Your task to perform on an android device: turn off sleep mode Image 0: 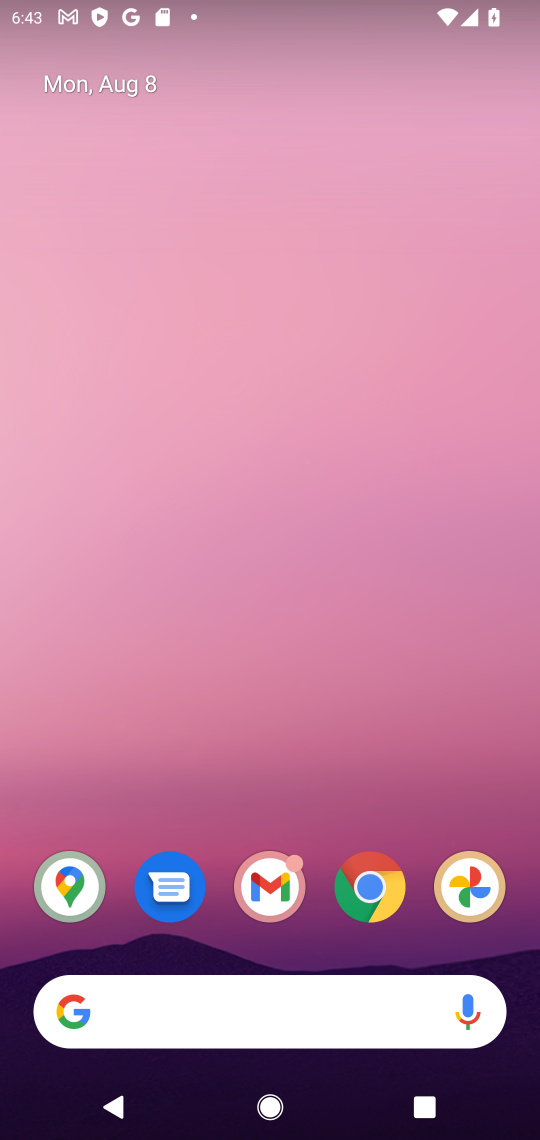
Step 0: drag from (325, 830) to (241, 179)
Your task to perform on an android device: turn off sleep mode Image 1: 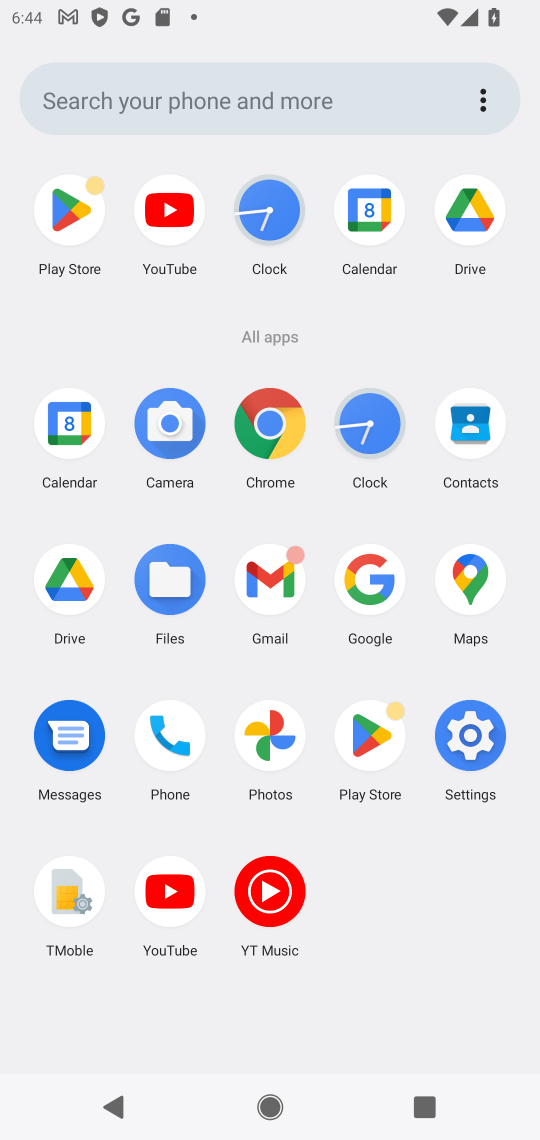
Step 1: click (478, 755)
Your task to perform on an android device: turn off sleep mode Image 2: 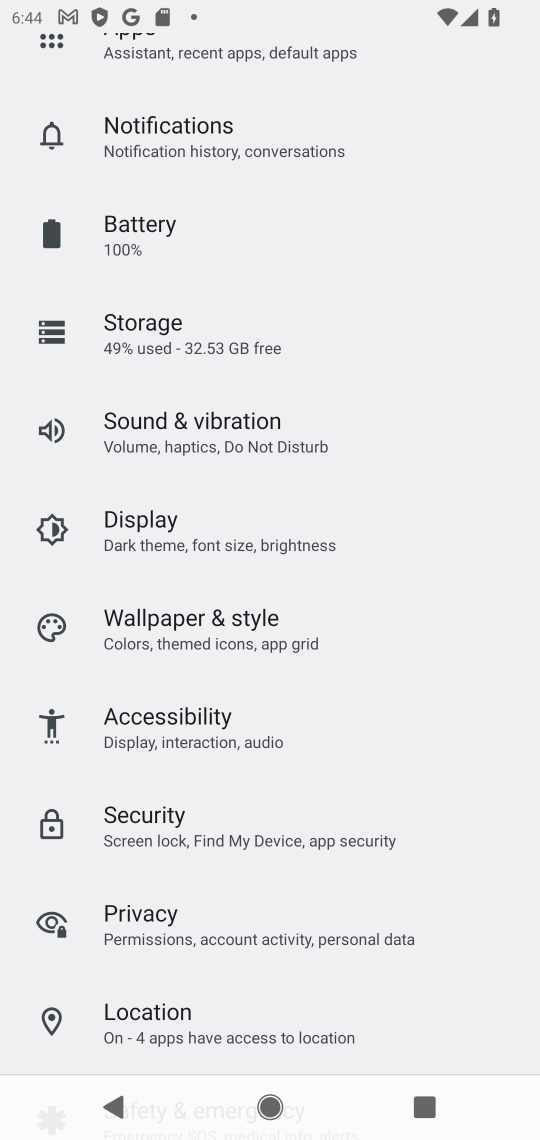
Step 2: click (242, 547)
Your task to perform on an android device: turn off sleep mode Image 3: 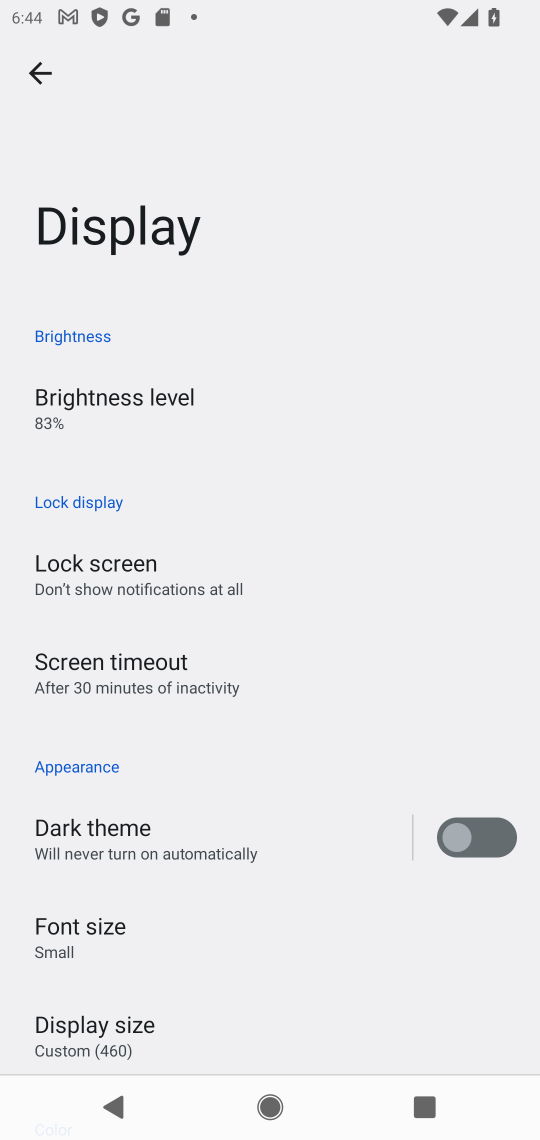
Step 3: task complete